Your task to perform on an android device: Go to CNN.com Image 0: 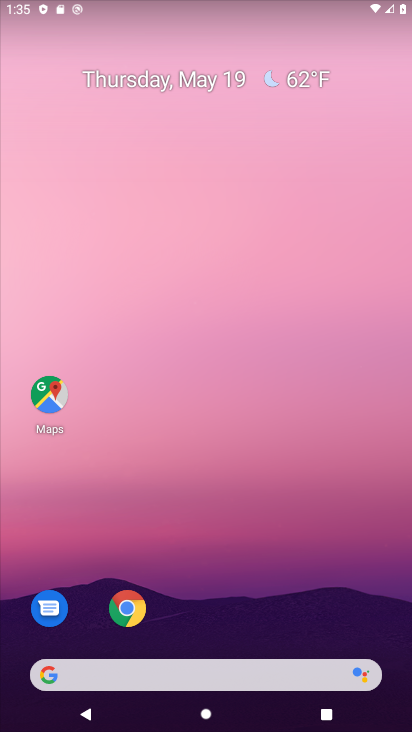
Step 0: click (144, 601)
Your task to perform on an android device: Go to CNN.com Image 1: 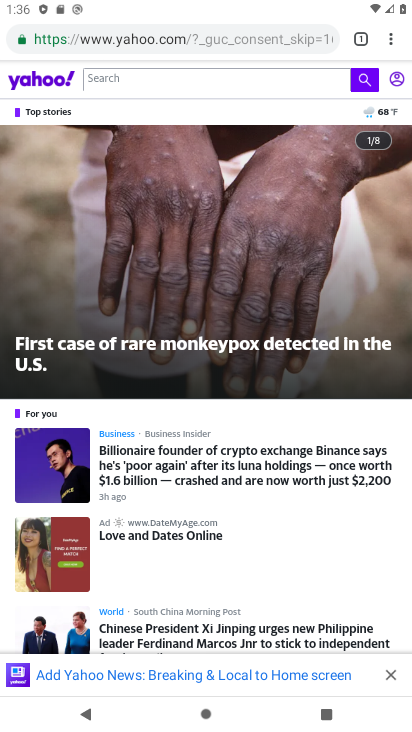
Step 1: click (190, 42)
Your task to perform on an android device: Go to CNN.com Image 2: 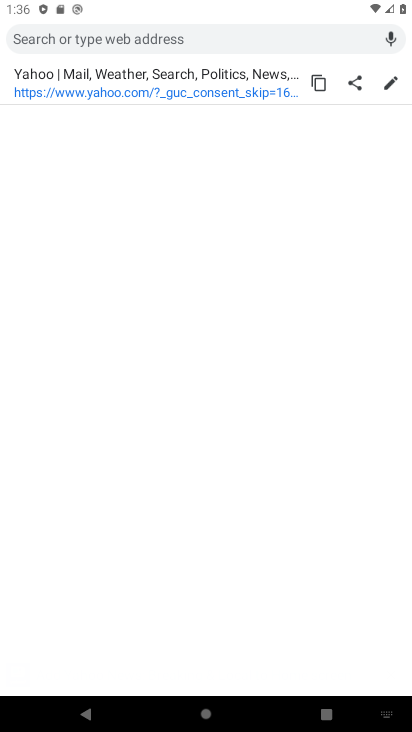
Step 2: type "cnn.com"
Your task to perform on an android device: Go to CNN.com Image 3: 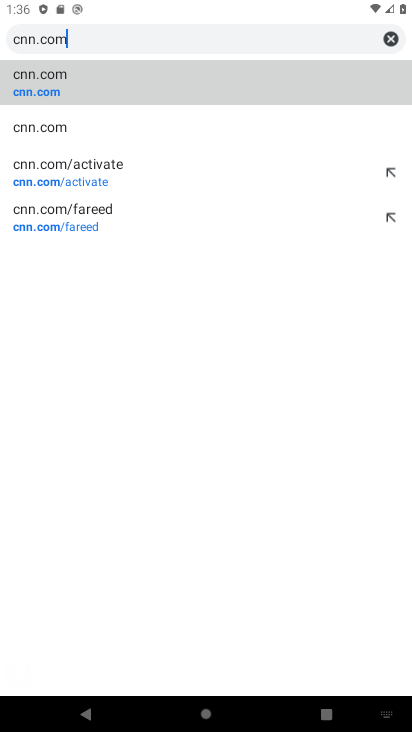
Step 3: click (142, 71)
Your task to perform on an android device: Go to CNN.com Image 4: 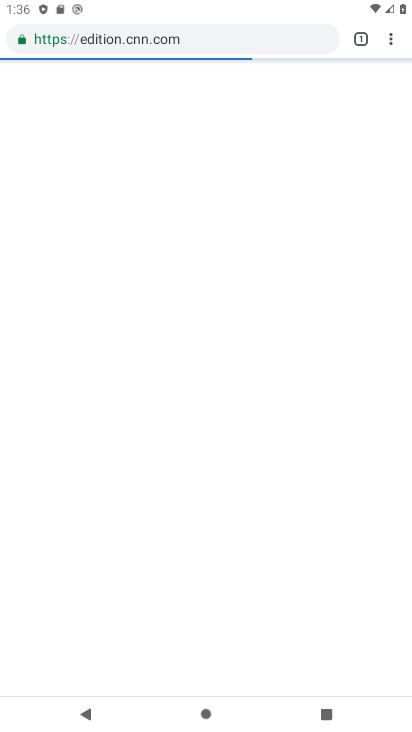
Step 4: task complete